Your task to perform on an android device: Open the map Image 0: 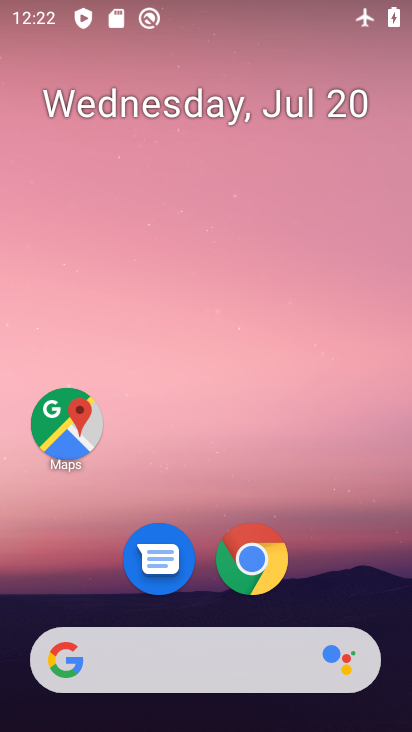
Step 0: drag from (337, 569) to (347, 86)
Your task to perform on an android device: Open the map Image 1: 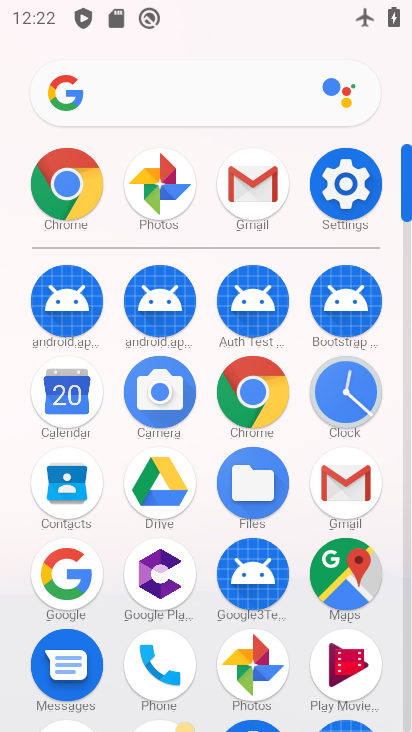
Step 1: click (344, 561)
Your task to perform on an android device: Open the map Image 2: 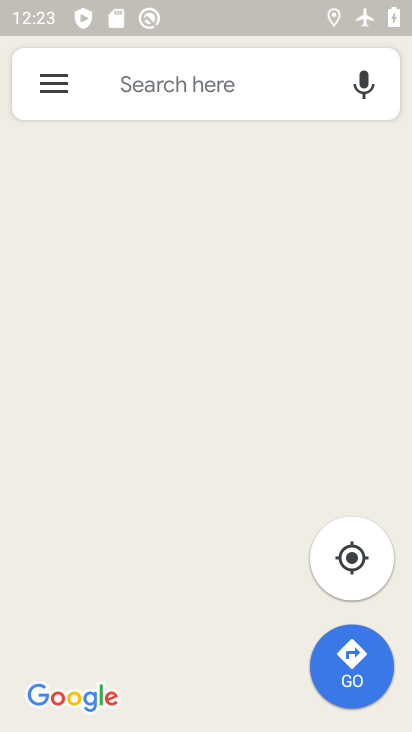
Step 2: task complete